Your task to perform on an android device: open chrome privacy settings Image 0: 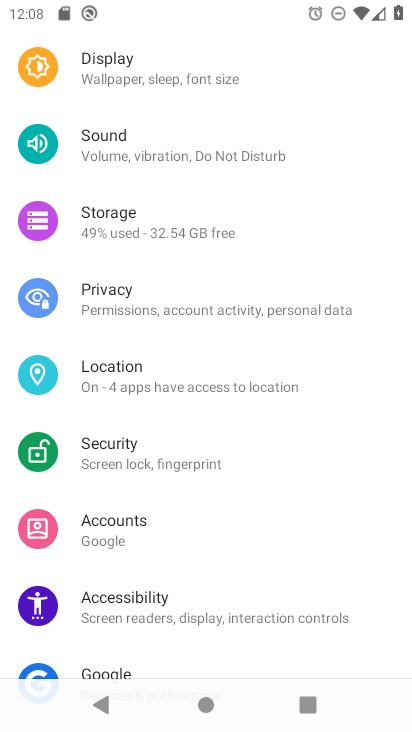
Step 0: press home button
Your task to perform on an android device: open chrome privacy settings Image 1: 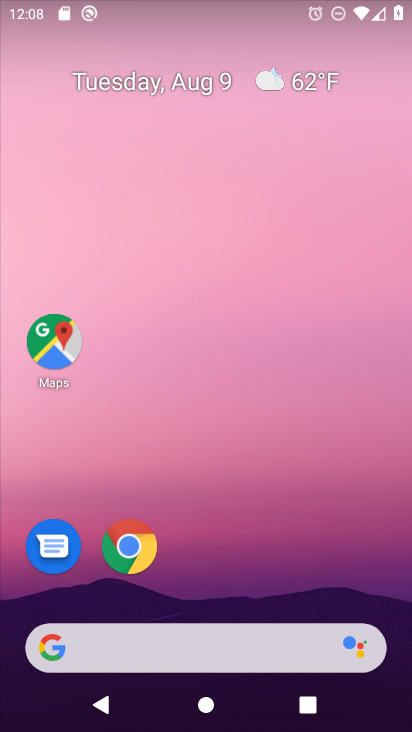
Step 1: click (132, 546)
Your task to perform on an android device: open chrome privacy settings Image 2: 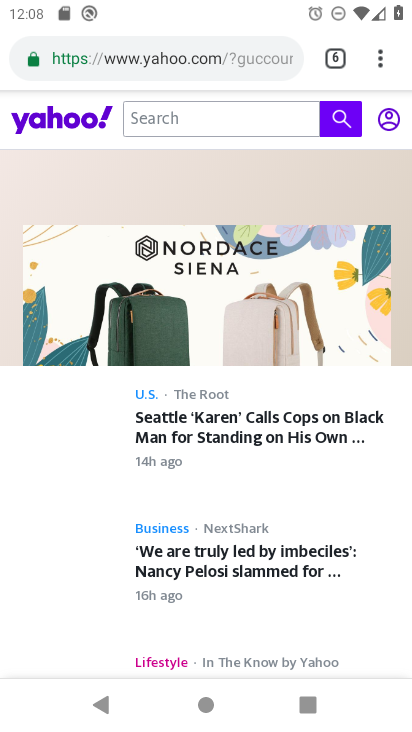
Step 2: click (380, 57)
Your task to perform on an android device: open chrome privacy settings Image 3: 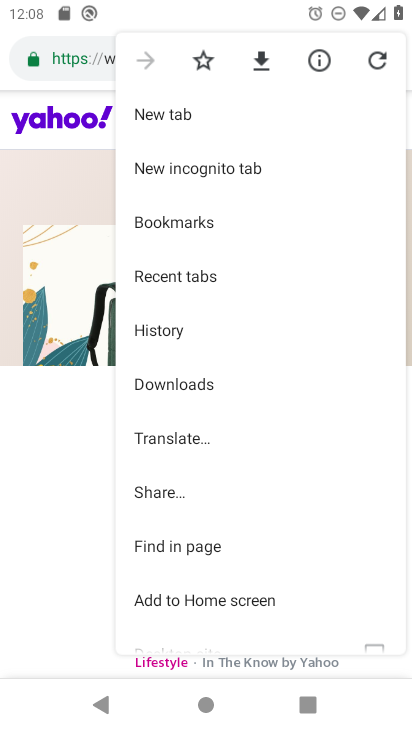
Step 3: drag from (231, 576) to (234, 409)
Your task to perform on an android device: open chrome privacy settings Image 4: 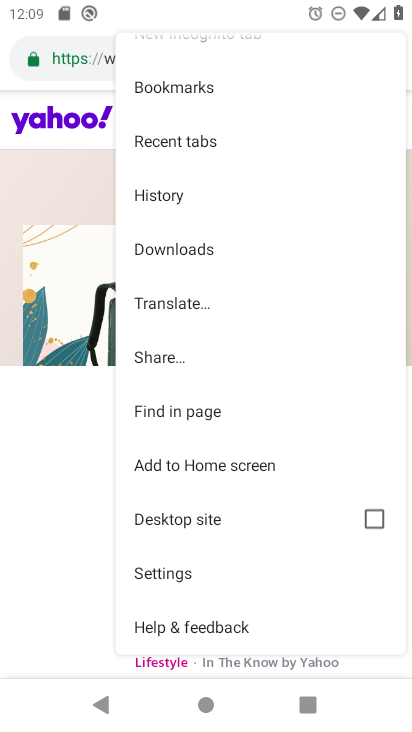
Step 4: click (194, 565)
Your task to perform on an android device: open chrome privacy settings Image 5: 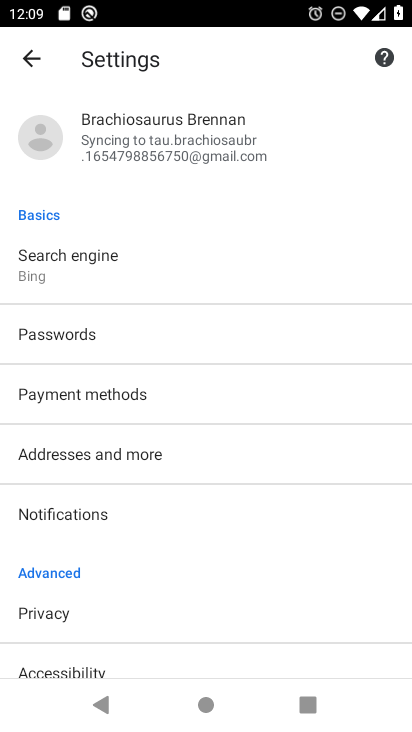
Step 5: click (84, 613)
Your task to perform on an android device: open chrome privacy settings Image 6: 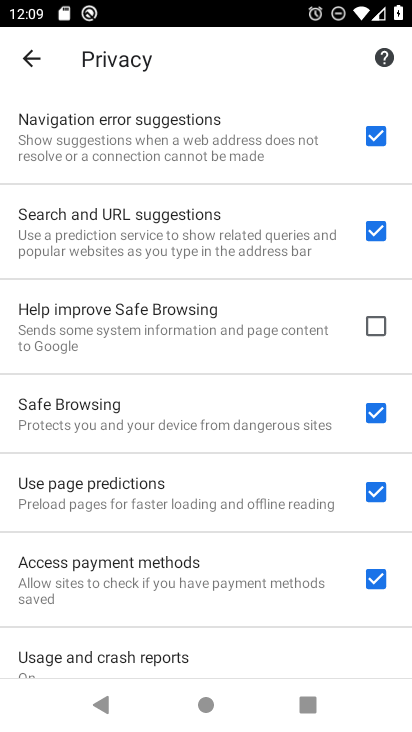
Step 6: task complete